Your task to perform on an android device: Open Google Chrome and click the shortcut for Amazon.com Image 0: 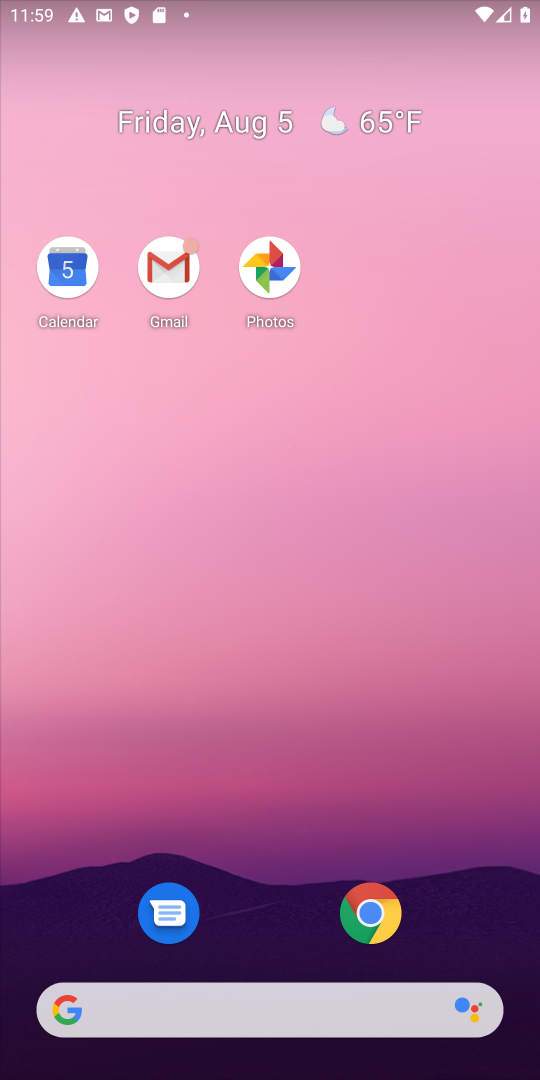
Step 0: click (361, 933)
Your task to perform on an android device: Open Google Chrome and click the shortcut for Amazon.com Image 1: 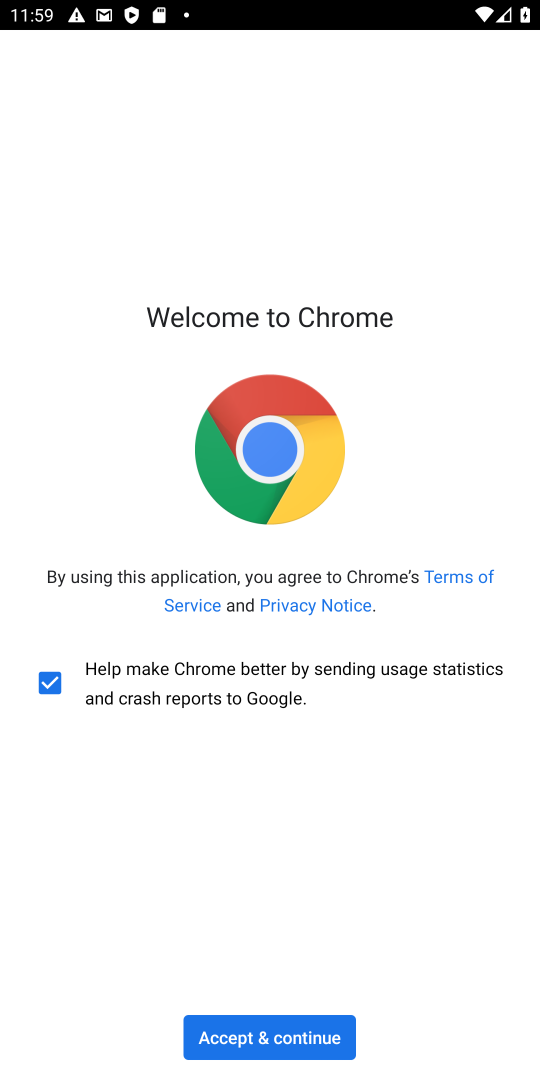
Step 1: click (275, 1054)
Your task to perform on an android device: Open Google Chrome and click the shortcut for Amazon.com Image 2: 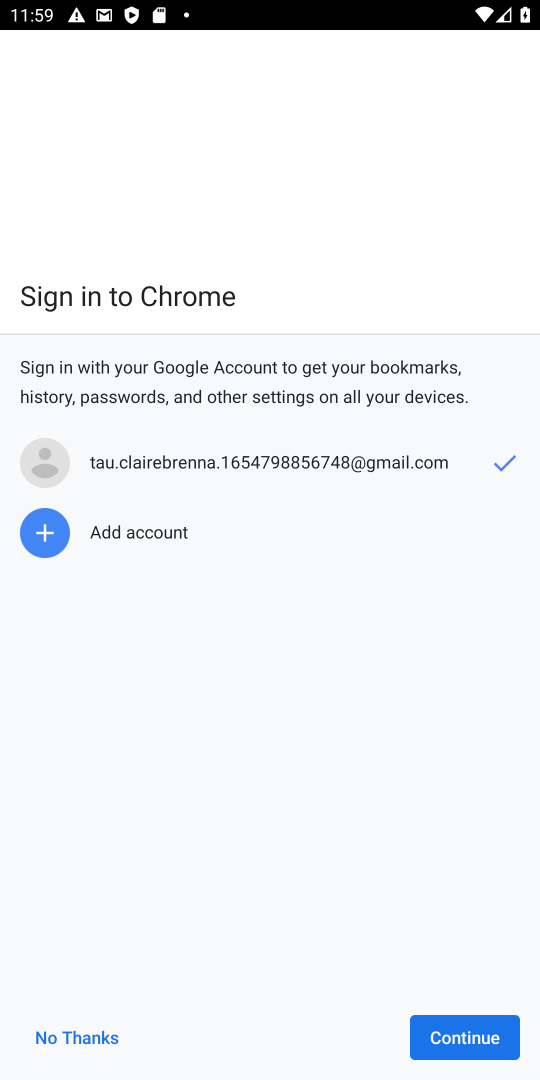
Step 2: click (442, 1040)
Your task to perform on an android device: Open Google Chrome and click the shortcut for Amazon.com Image 3: 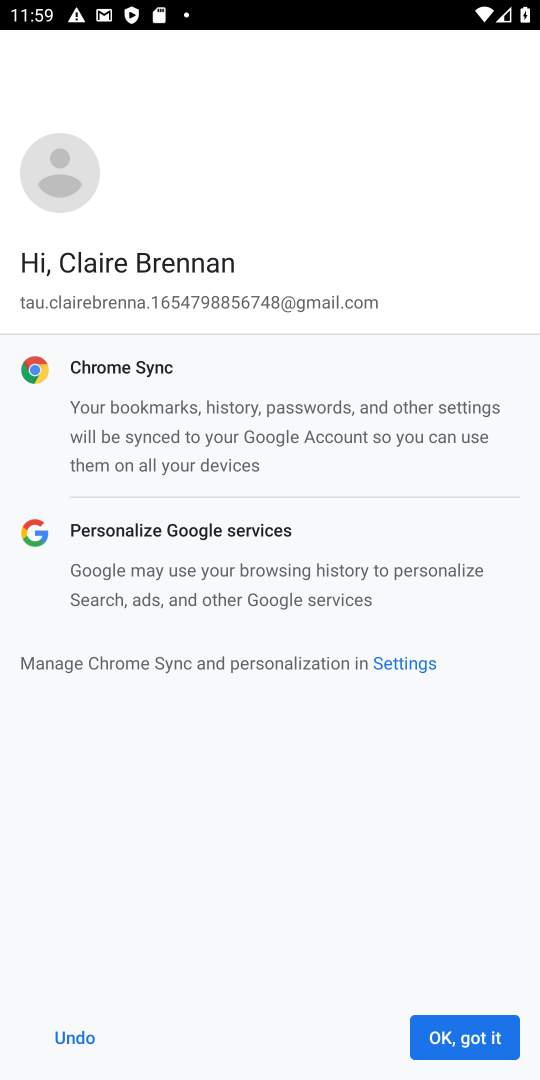
Step 3: click (428, 1065)
Your task to perform on an android device: Open Google Chrome and click the shortcut for Amazon.com Image 4: 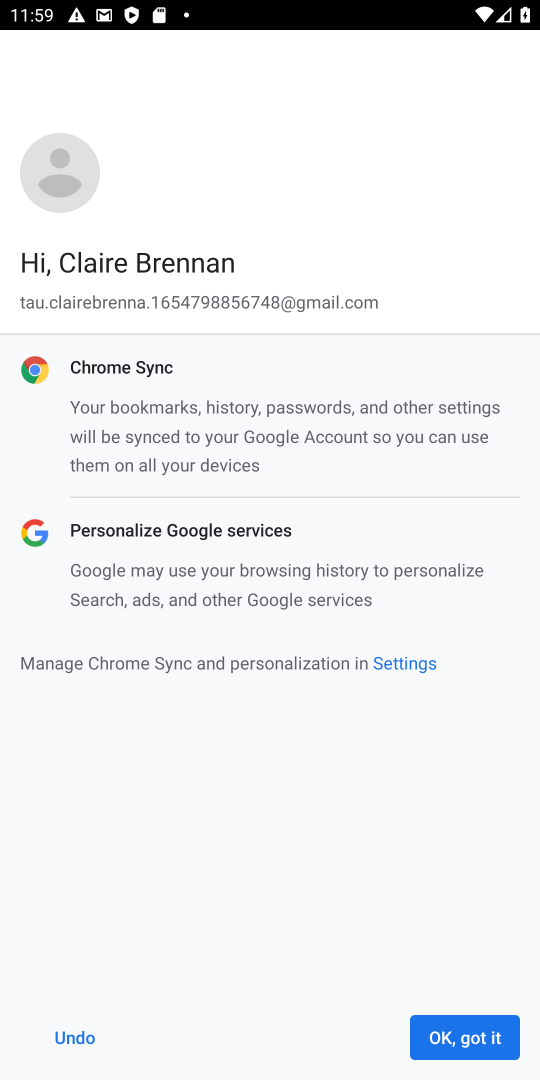
Step 4: click (457, 1040)
Your task to perform on an android device: Open Google Chrome and click the shortcut for Amazon.com Image 5: 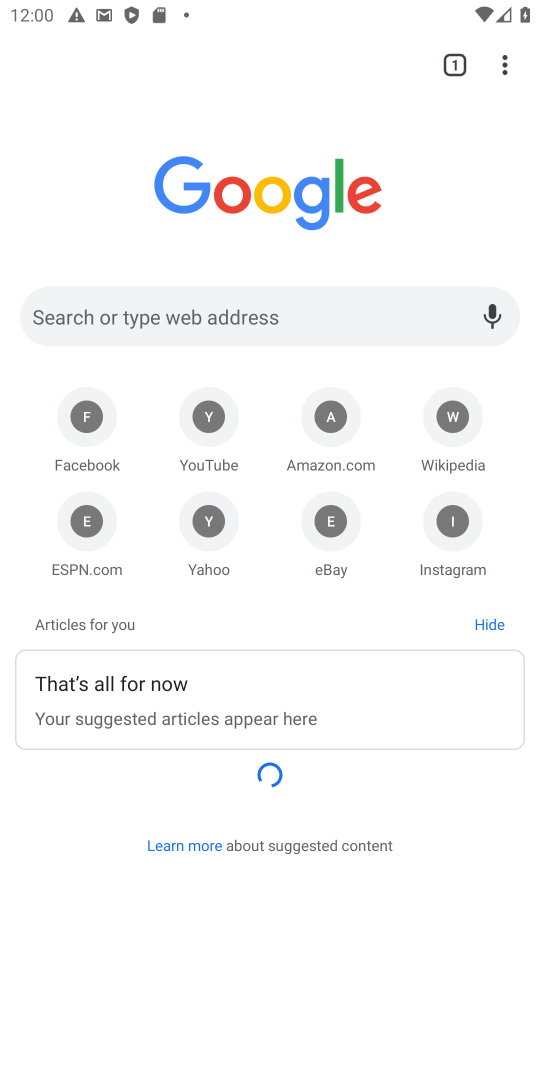
Step 5: click (341, 427)
Your task to perform on an android device: Open Google Chrome and click the shortcut for Amazon.com Image 6: 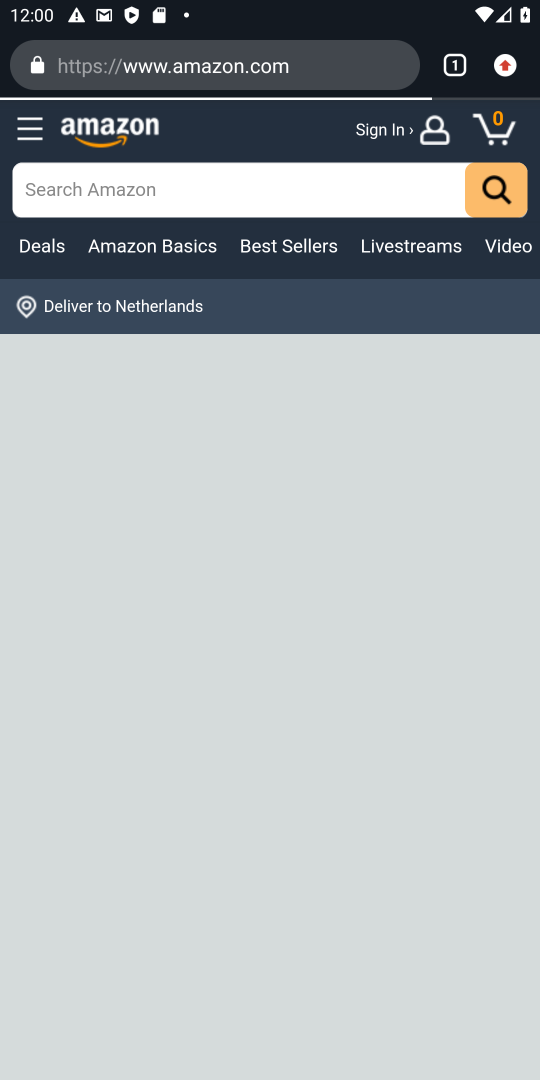
Step 6: click (506, 61)
Your task to perform on an android device: Open Google Chrome and click the shortcut for Amazon.com Image 7: 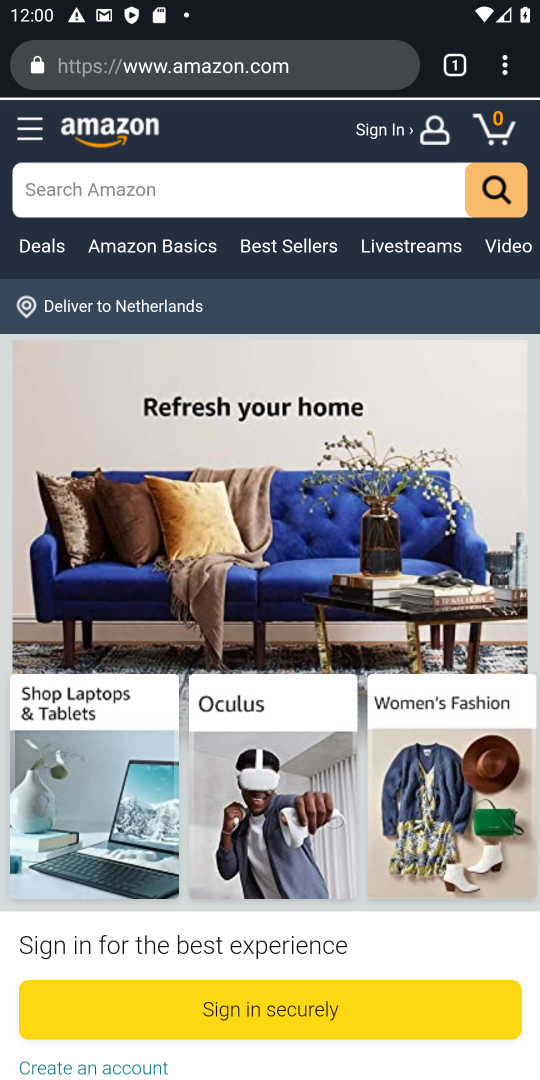
Step 7: click (506, 61)
Your task to perform on an android device: Open Google Chrome and click the shortcut for Amazon.com Image 8: 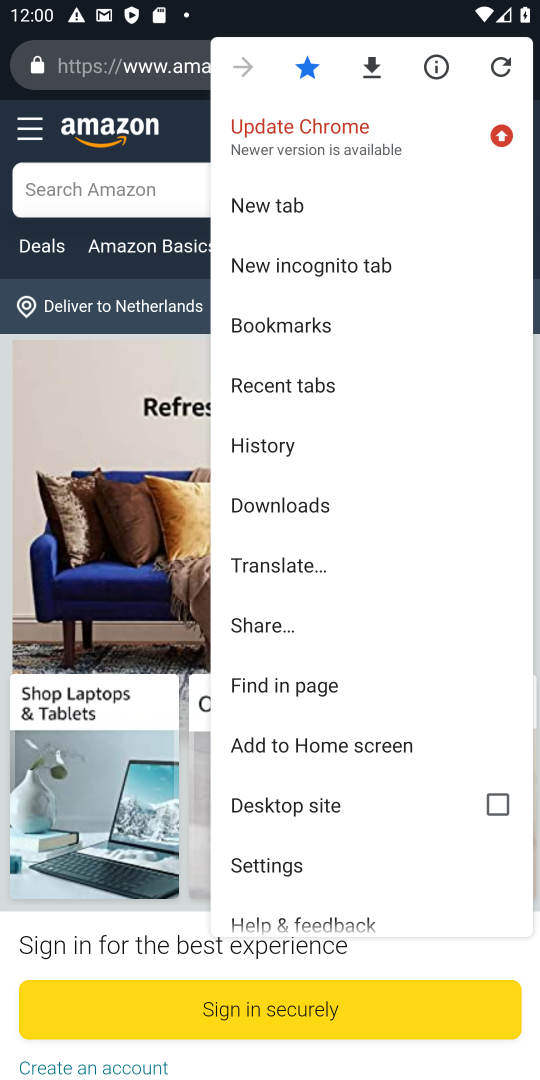
Step 8: click (345, 763)
Your task to perform on an android device: Open Google Chrome and click the shortcut for Amazon.com Image 9: 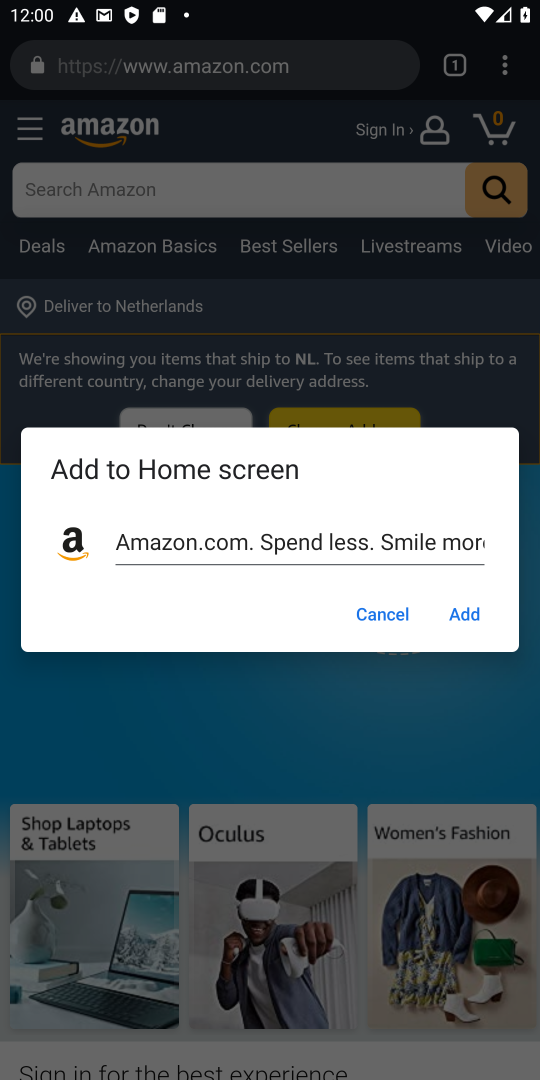
Step 9: click (478, 608)
Your task to perform on an android device: Open Google Chrome and click the shortcut for Amazon.com Image 10: 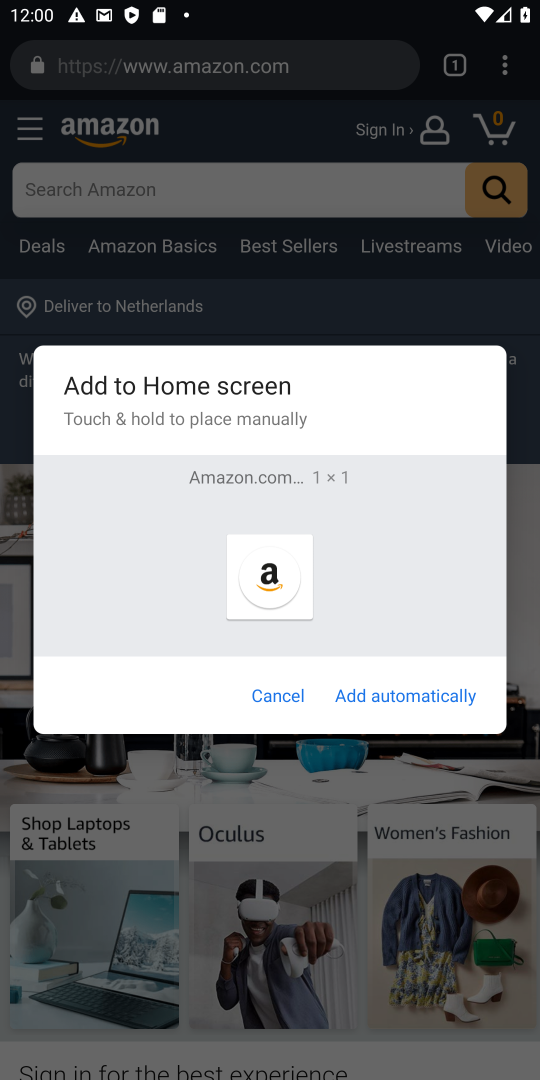
Step 10: click (437, 679)
Your task to perform on an android device: Open Google Chrome and click the shortcut for Amazon.com Image 11: 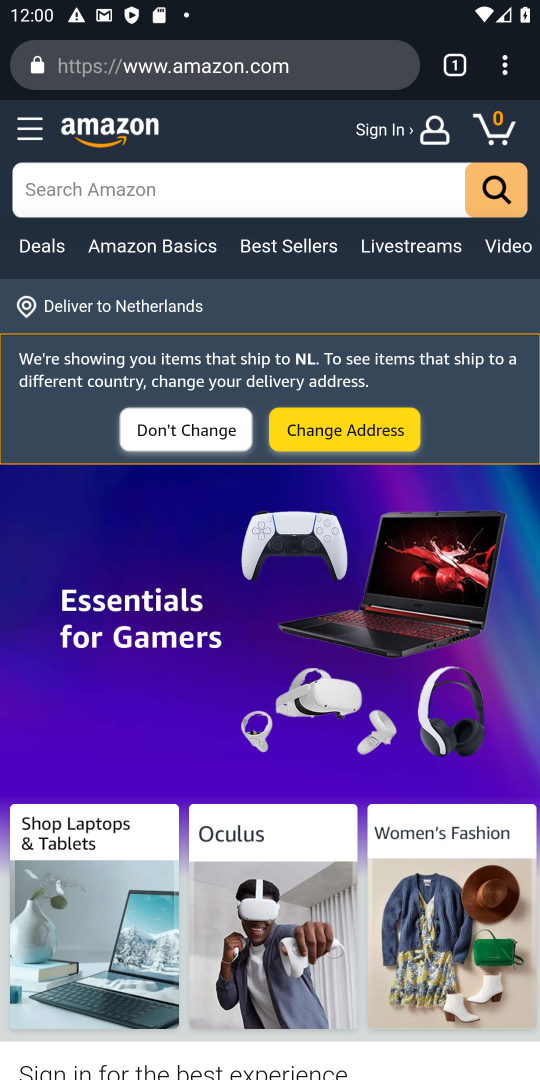
Step 11: task complete